Your task to perform on an android device: open chrome privacy settings Image 0: 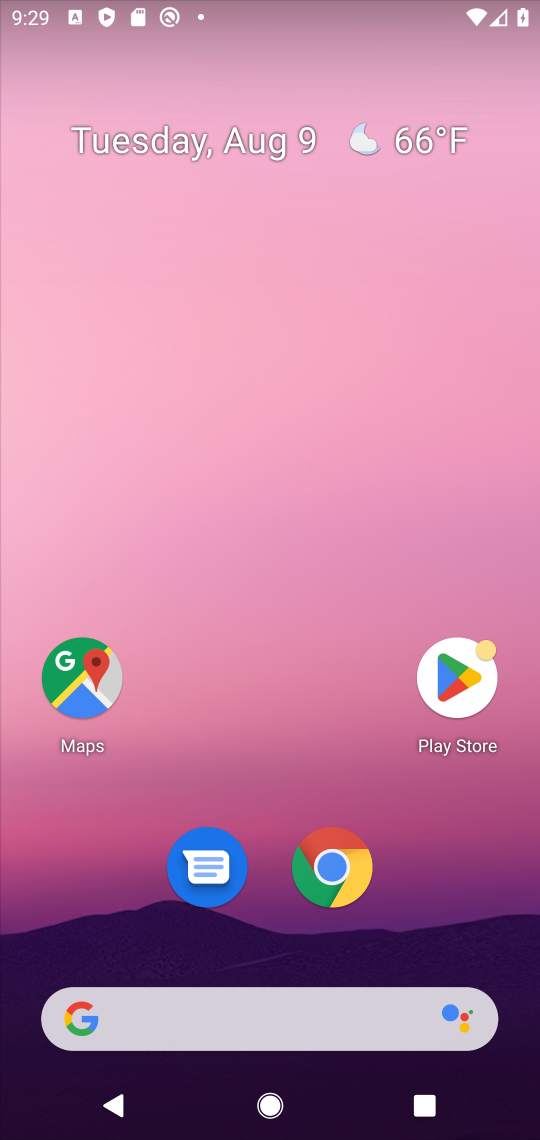
Step 0: drag from (406, 871) to (350, 318)
Your task to perform on an android device: open chrome privacy settings Image 1: 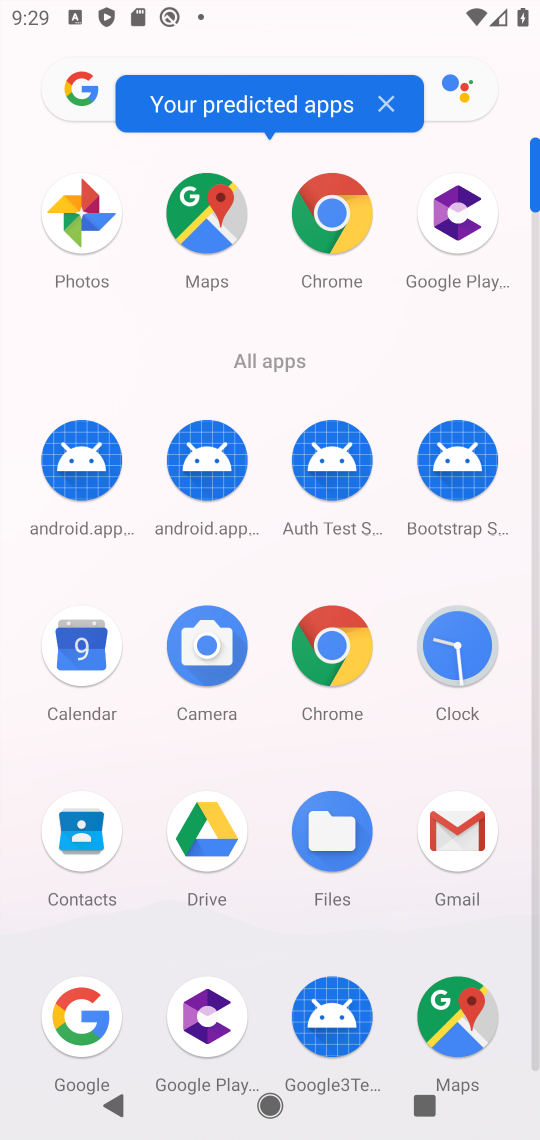
Step 1: click (333, 196)
Your task to perform on an android device: open chrome privacy settings Image 2: 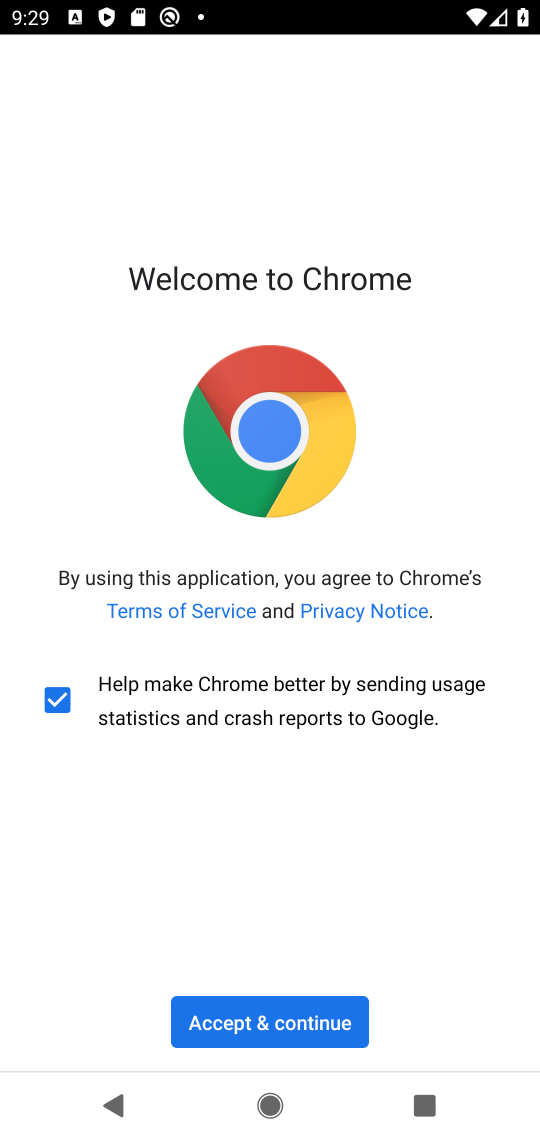
Step 2: click (262, 1034)
Your task to perform on an android device: open chrome privacy settings Image 3: 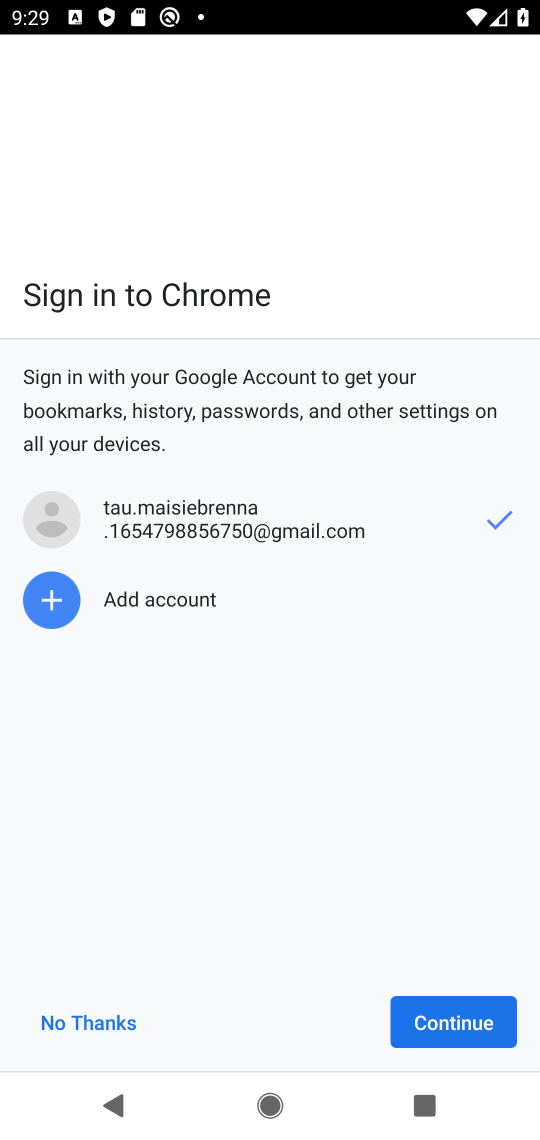
Step 3: click (482, 1003)
Your task to perform on an android device: open chrome privacy settings Image 4: 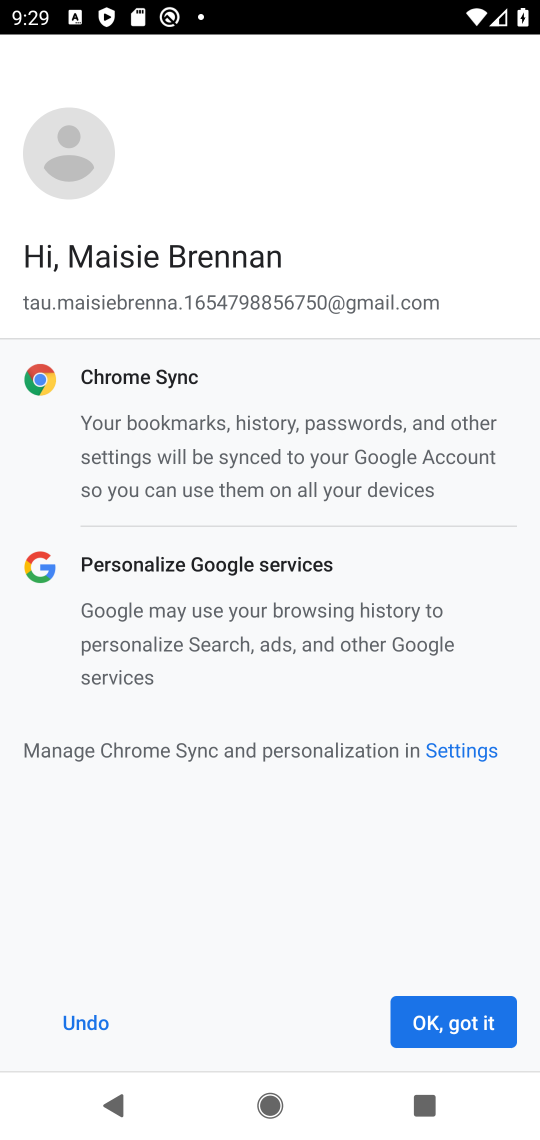
Step 4: click (482, 1003)
Your task to perform on an android device: open chrome privacy settings Image 5: 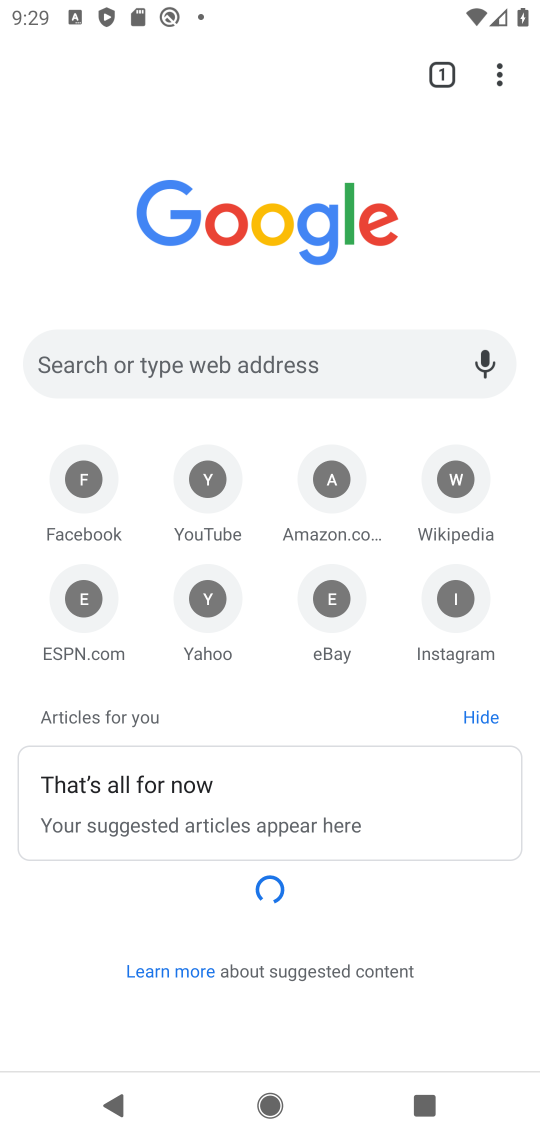
Step 5: click (511, 77)
Your task to perform on an android device: open chrome privacy settings Image 6: 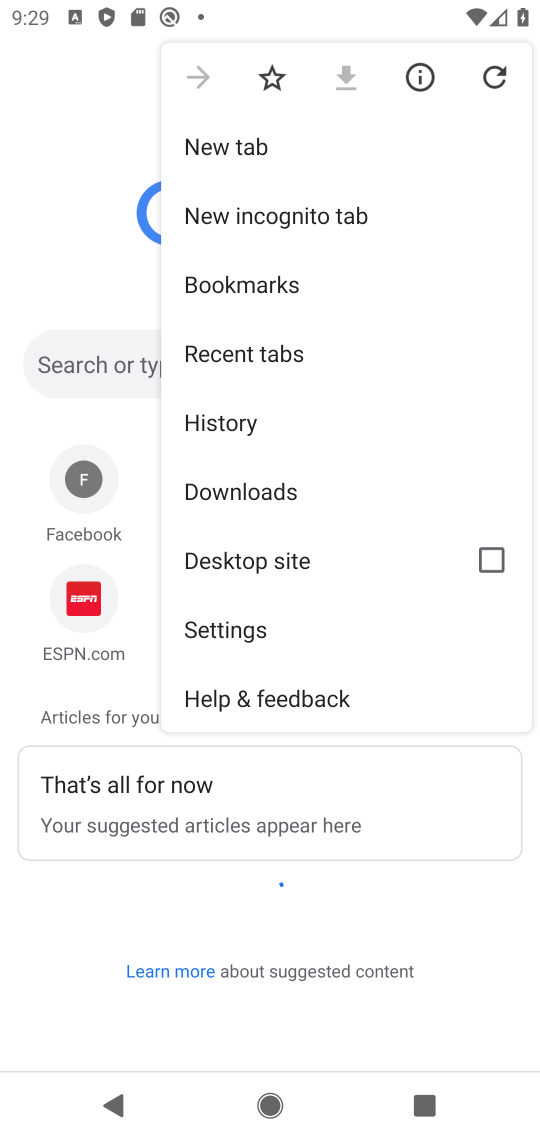
Step 6: click (304, 618)
Your task to perform on an android device: open chrome privacy settings Image 7: 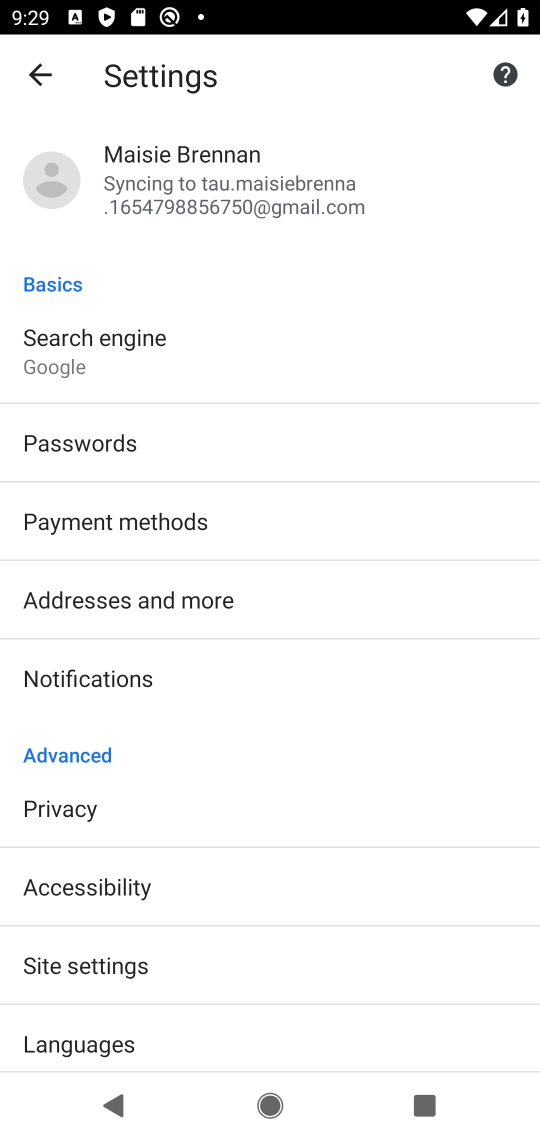
Step 7: click (106, 815)
Your task to perform on an android device: open chrome privacy settings Image 8: 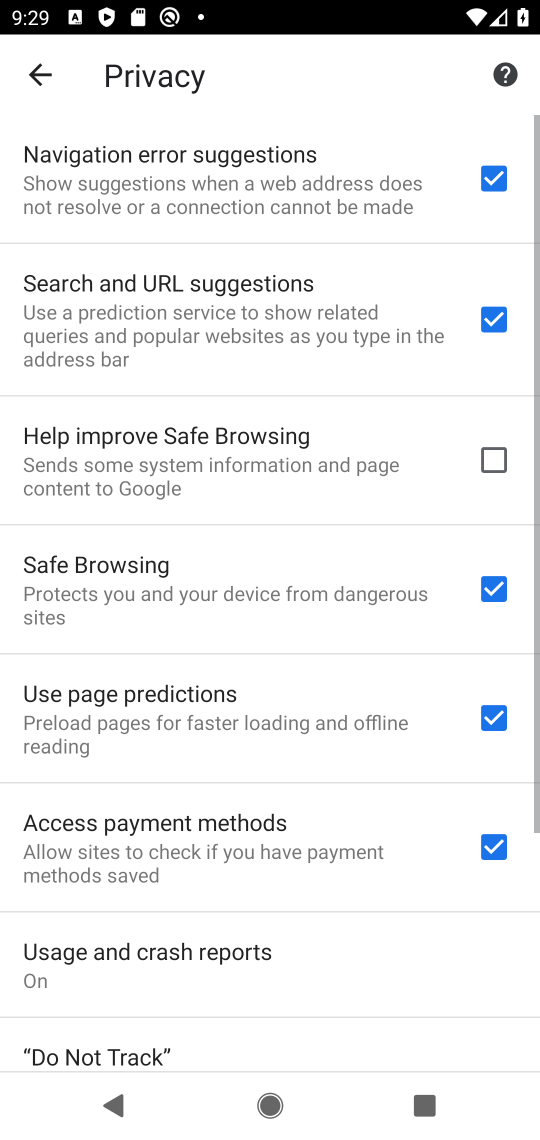
Step 8: task complete